Your task to perform on an android device: Go to Android settings Image 0: 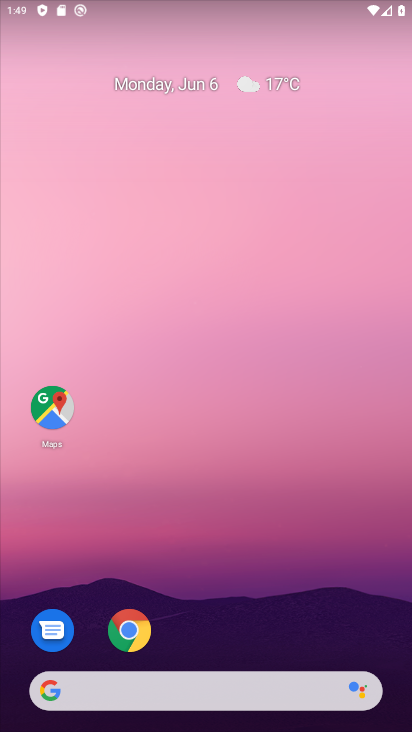
Step 0: drag from (195, 666) to (145, 217)
Your task to perform on an android device: Go to Android settings Image 1: 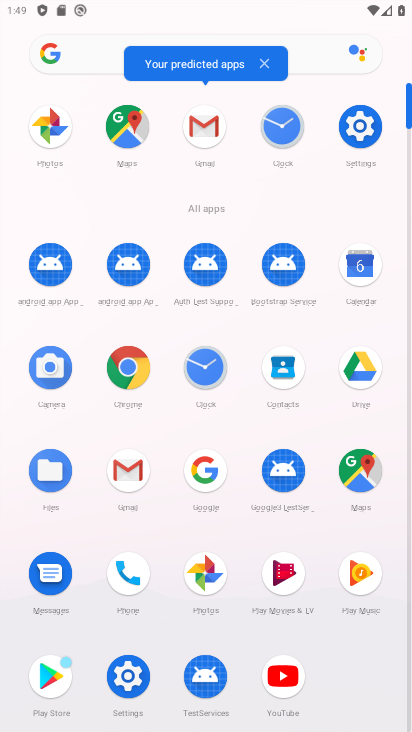
Step 1: click (357, 130)
Your task to perform on an android device: Go to Android settings Image 2: 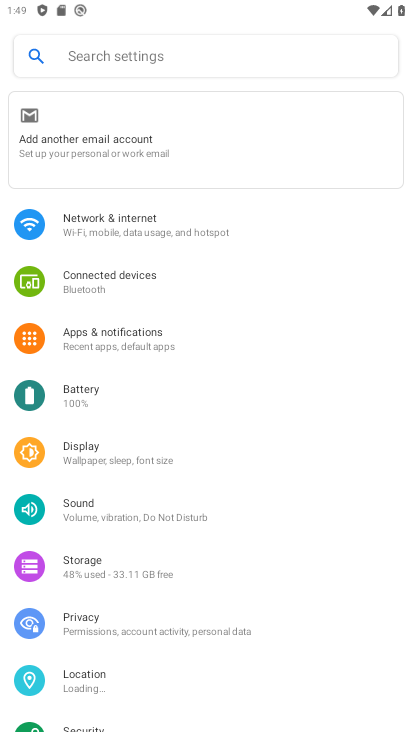
Step 2: task complete